Your task to perform on an android device: Open network settings Image 0: 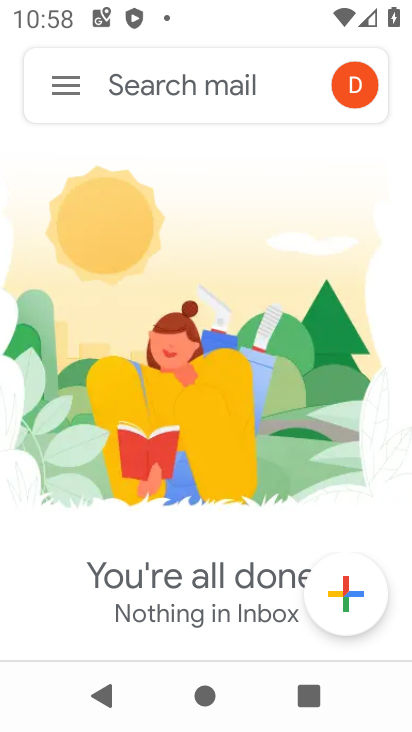
Step 0: press home button
Your task to perform on an android device: Open network settings Image 1: 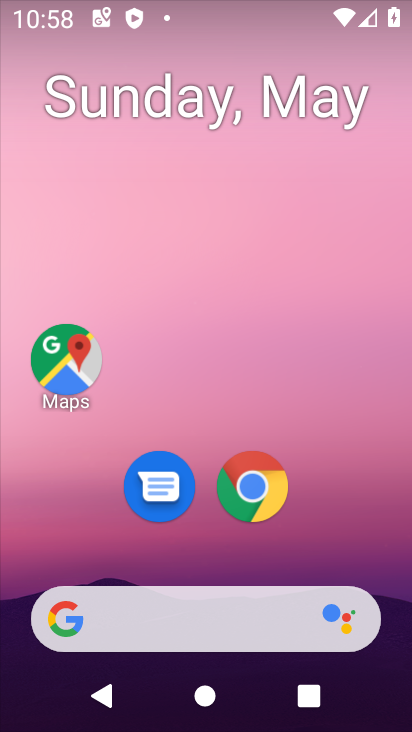
Step 1: drag from (311, 543) to (296, 259)
Your task to perform on an android device: Open network settings Image 2: 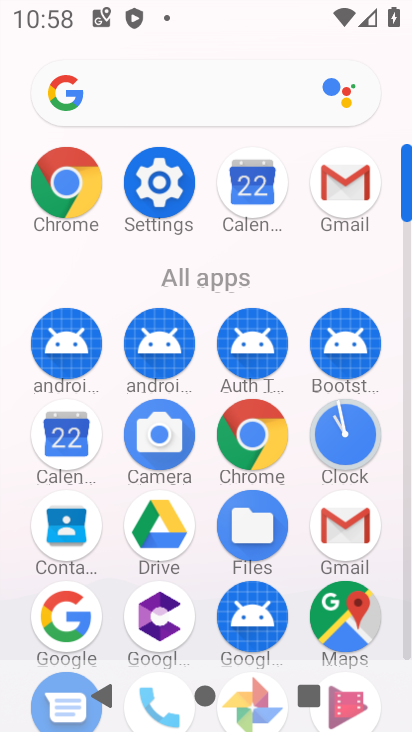
Step 2: click (163, 186)
Your task to perform on an android device: Open network settings Image 3: 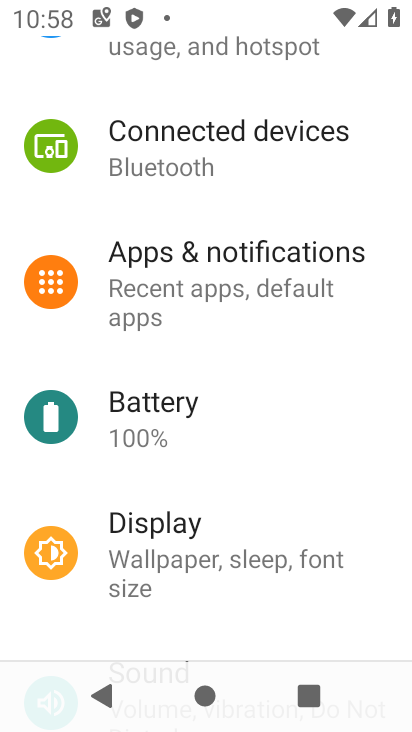
Step 3: drag from (203, 215) to (194, 395)
Your task to perform on an android device: Open network settings Image 4: 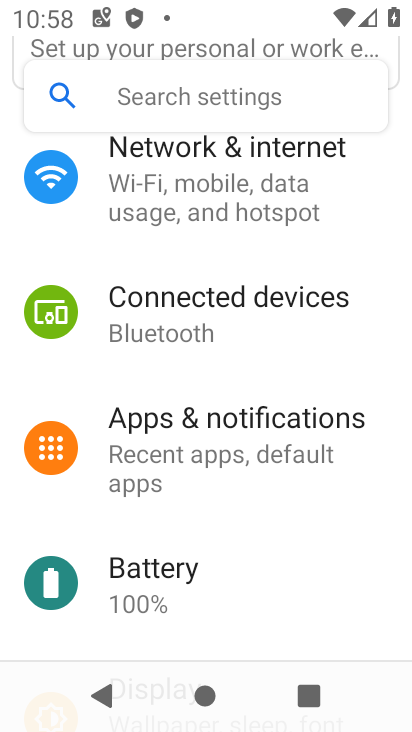
Step 4: click (214, 183)
Your task to perform on an android device: Open network settings Image 5: 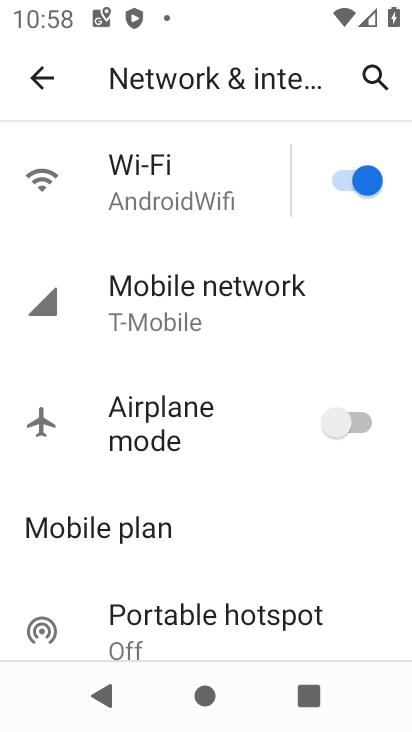
Step 5: click (206, 323)
Your task to perform on an android device: Open network settings Image 6: 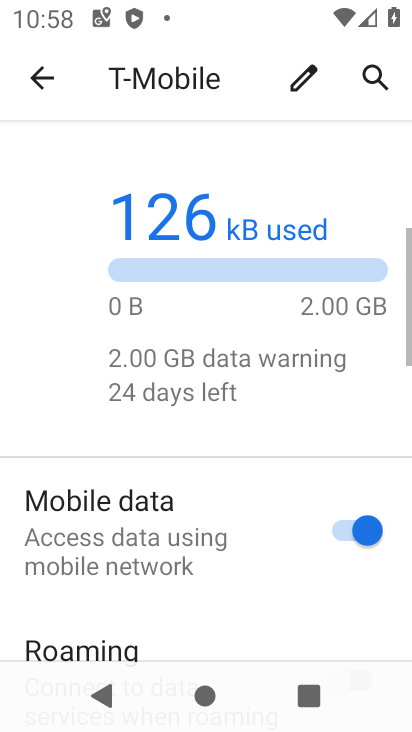
Step 6: task complete